Your task to perform on an android device: turn on airplane mode Image 0: 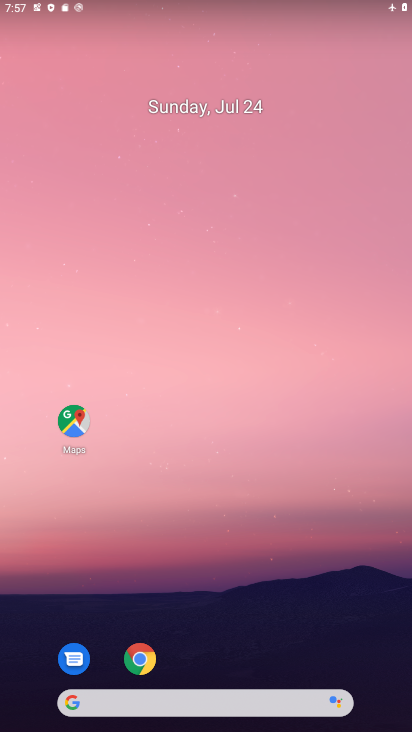
Step 0: drag from (221, 728) to (257, 308)
Your task to perform on an android device: turn on airplane mode Image 1: 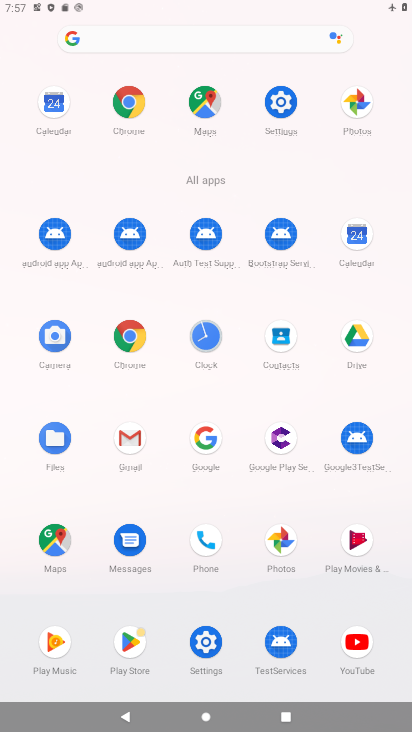
Step 1: click (284, 102)
Your task to perform on an android device: turn on airplane mode Image 2: 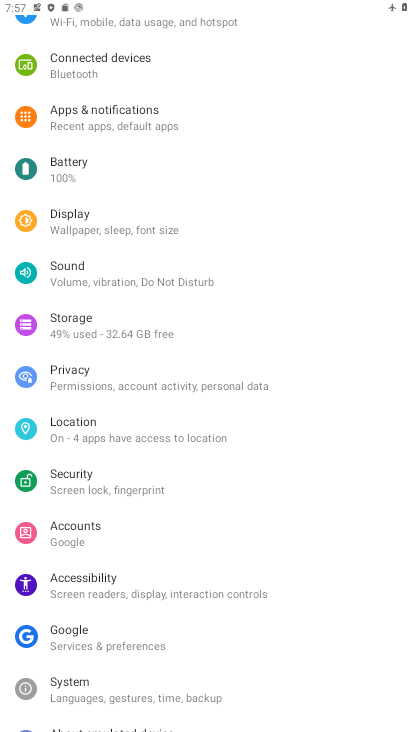
Step 2: drag from (230, 128) to (264, 550)
Your task to perform on an android device: turn on airplane mode Image 3: 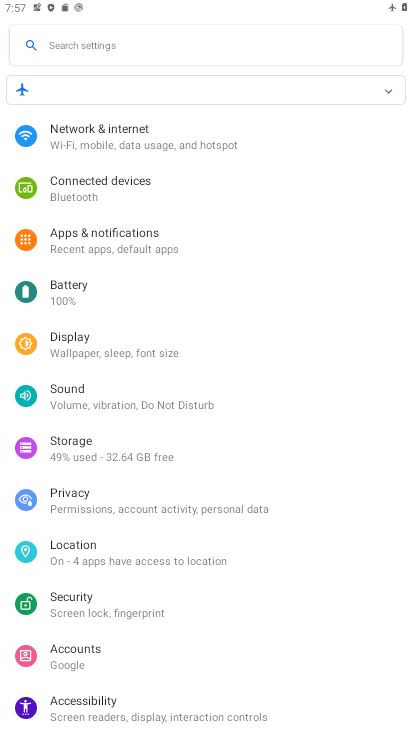
Step 3: click (114, 135)
Your task to perform on an android device: turn on airplane mode Image 4: 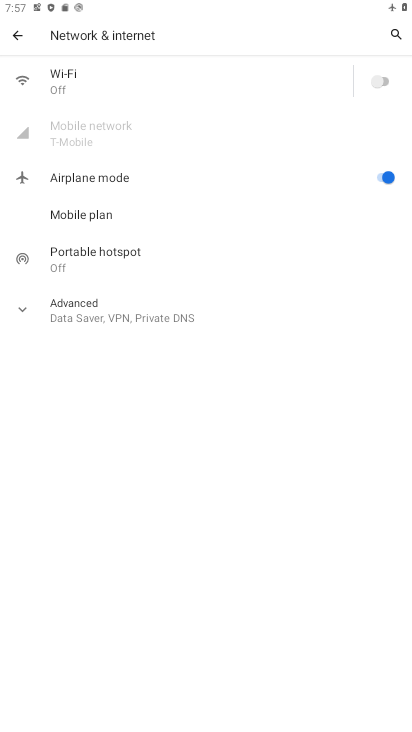
Step 4: task complete